Your task to perform on an android device: open the mobile data screen to see how much data has been used Image 0: 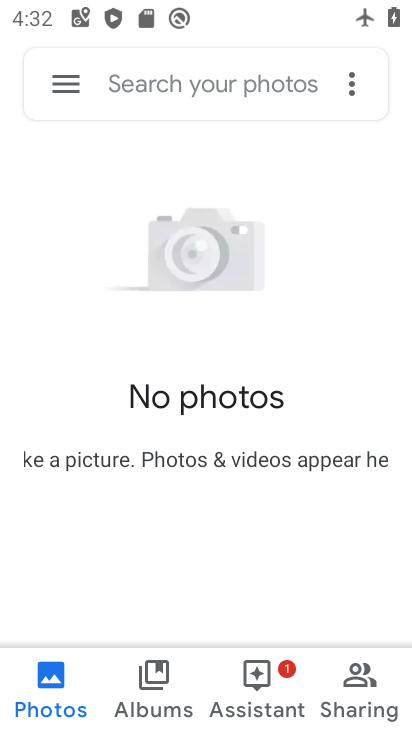
Step 0: press back button
Your task to perform on an android device: open the mobile data screen to see how much data has been used Image 1: 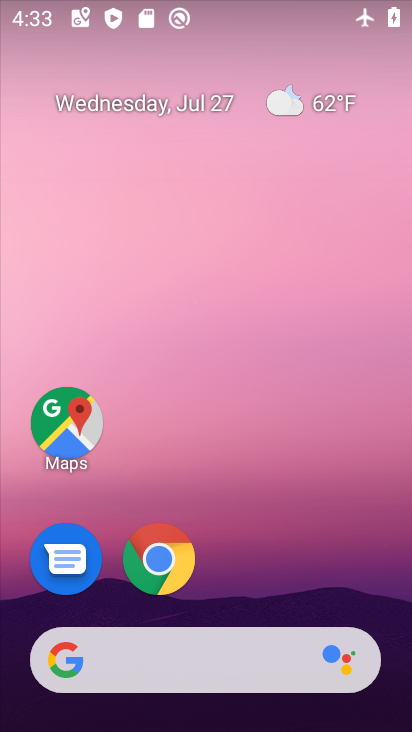
Step 1: drag from (241, 587) to (244, 28)
Your task to perform on an android device: open the mobile data screen to see how much data has been used Image 2: 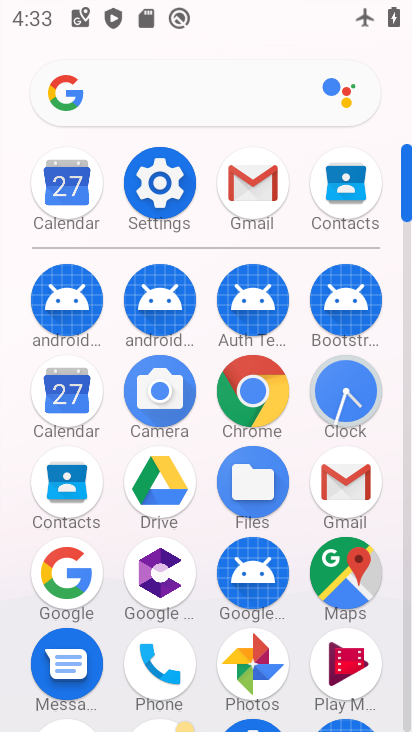
Step 2: click (239, 384)
Your task to perform on an android device: open the mobile data screen to see how much data has been used Image 3: 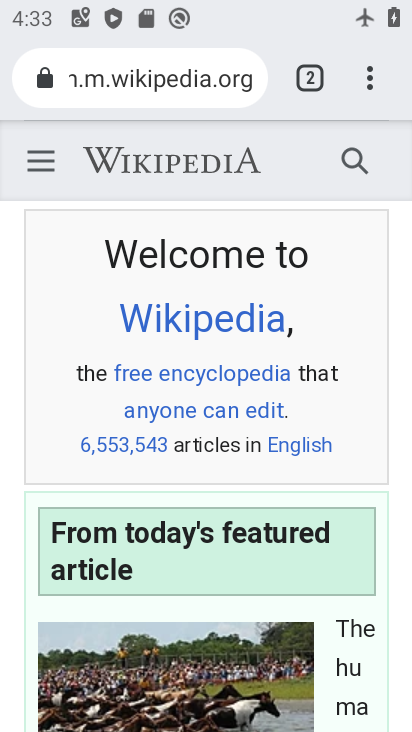
Step 3: drag from (374, 72) to (138, 600)
Your task to perform on an android device: open the mobile data screen to see how much data has been used Image 4: 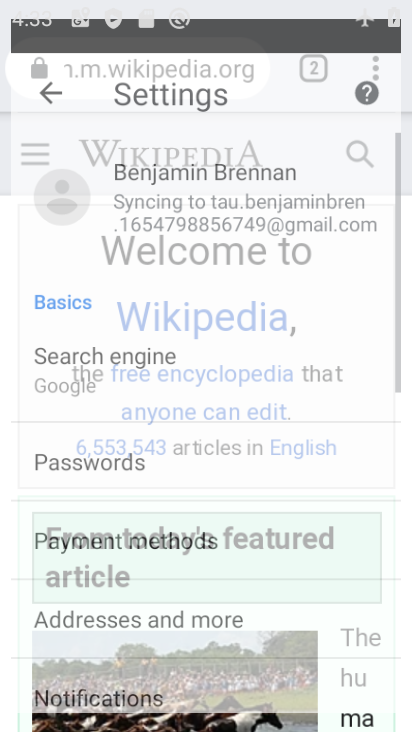
Step 4: press back button
Your task to perform on an android device: open the mobile data screen to see how much data has been used Image 5: 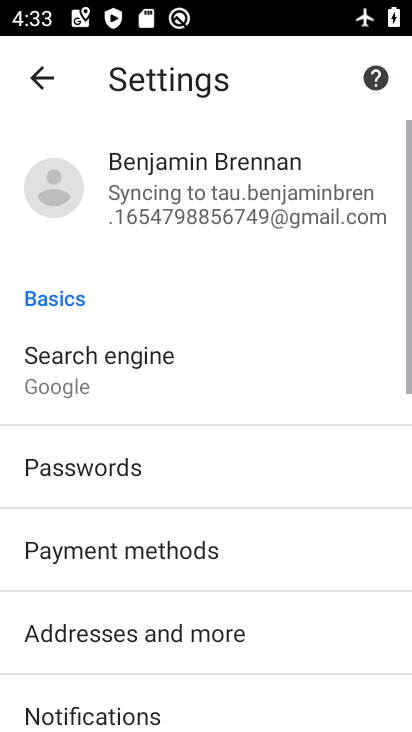
Step 5: press back button
Your task to perform on an android device: open the mobile data screen to see how much data has been used Image 6: 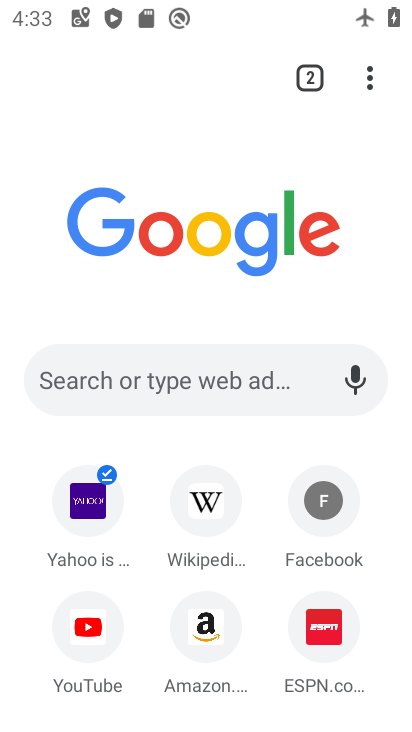
Step 6: press back button
Your task to perform on an android device: open the mobile data screen to see how much data has been used Image 7: 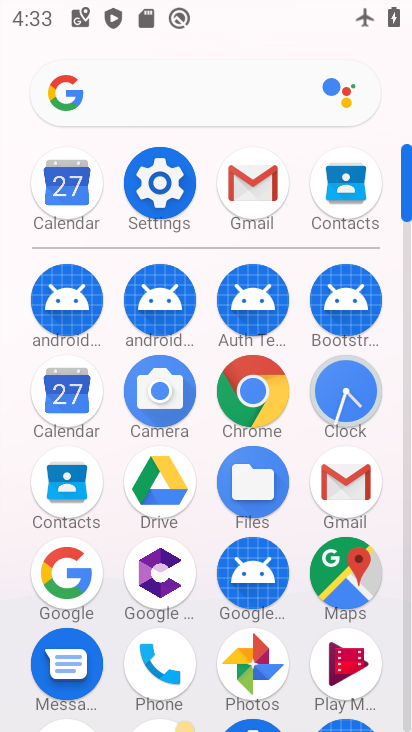
Step 7: click (166, 184)
Your task to perform on an android device: open the mobile data screen to see how much data has been used Image 8: 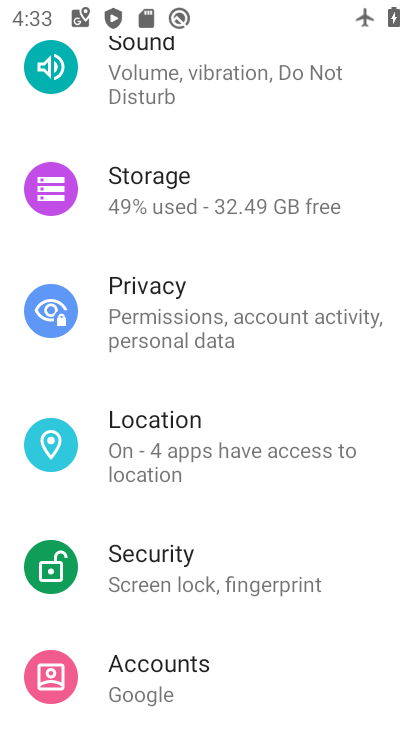
Step 8: drag from (262, 112) to (238, 726)
Your task to perform on an android device: open the mobile data screen to see how much data has been used Image 9: 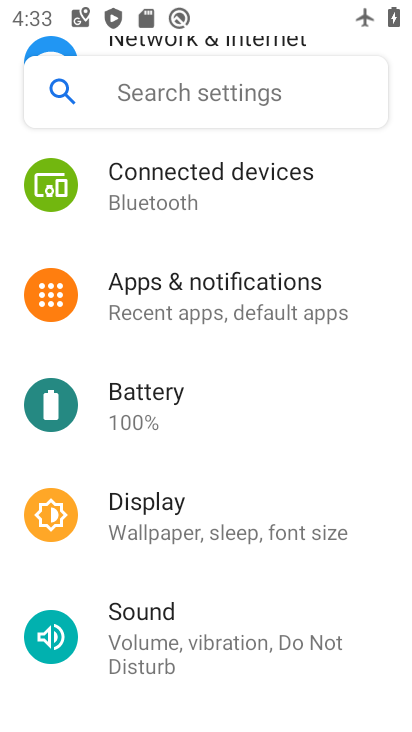
Step 9: drag from (236, 213) to (166, 709)
Your task to perform on an android device: open the mobile data screen to see how much data has been used Image 10: 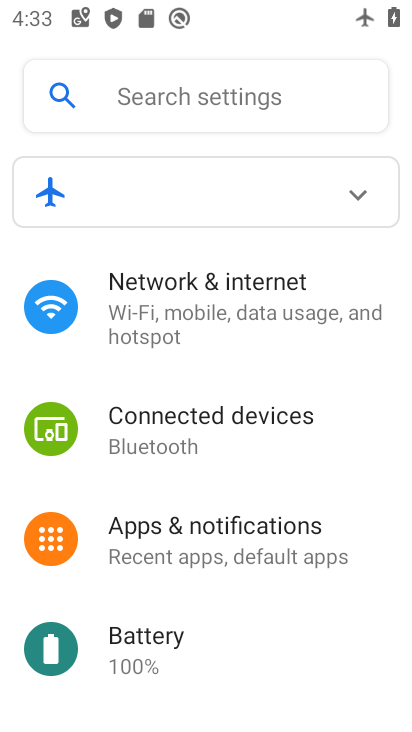
Step 10: click (253, 315)
Your task to perform on an android device: open the mobile data screen to see how much data has been used Image 11: 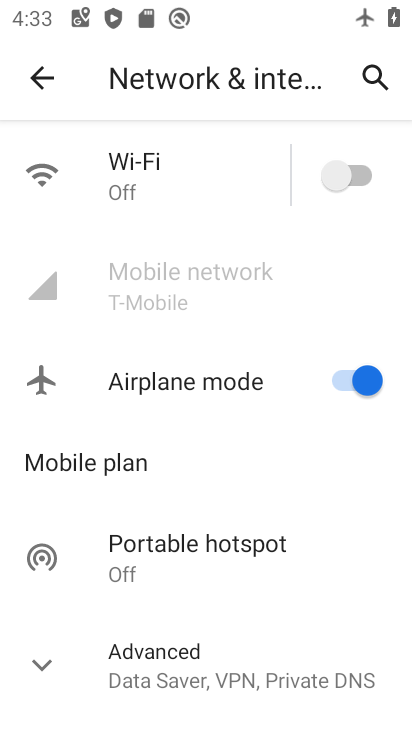
Step 11: click (362, 387)
Your task to perform on an android device: open the mobile data screen to see how much data has been used Image 12: 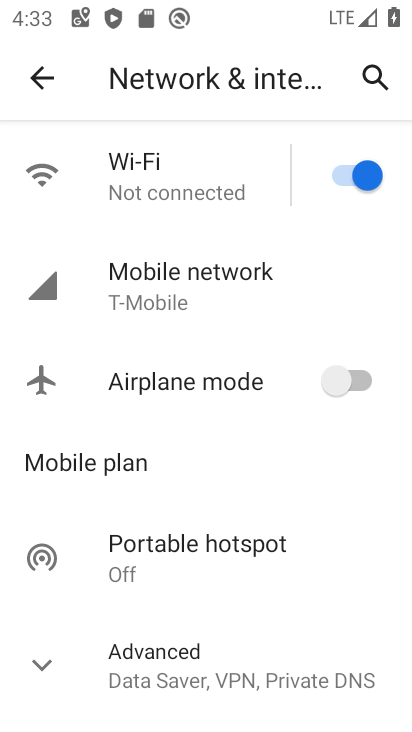
Step 12: click (190, 286)
Your task to perform on an android device: open the mobile data screen to see how much data has been used Image 13: 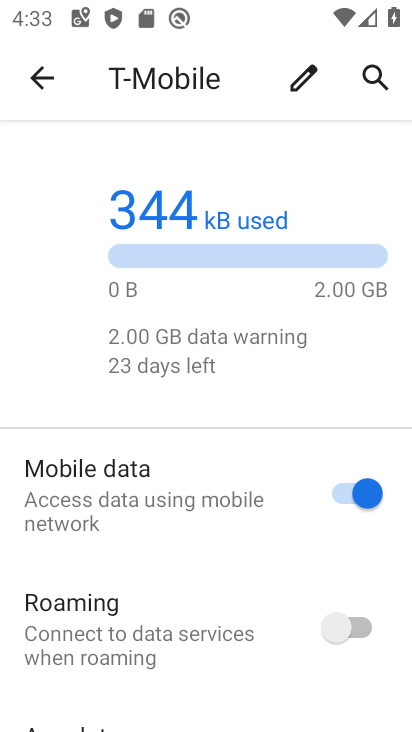
Step 13: drag from (234, 313) to (261, 138)
Your task to perform on an android device: open the mobile data screen to see how much data has been used Image 14: 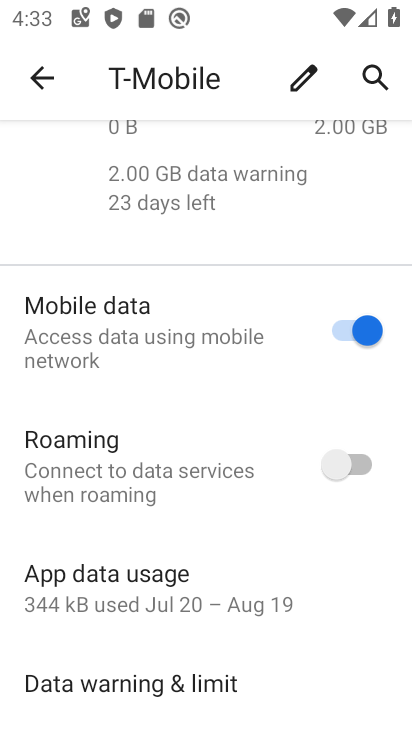
Step 14: click (72, 585)
Your task to perform on an android device: open the mobile data screen to see how much data has been used Image 15: 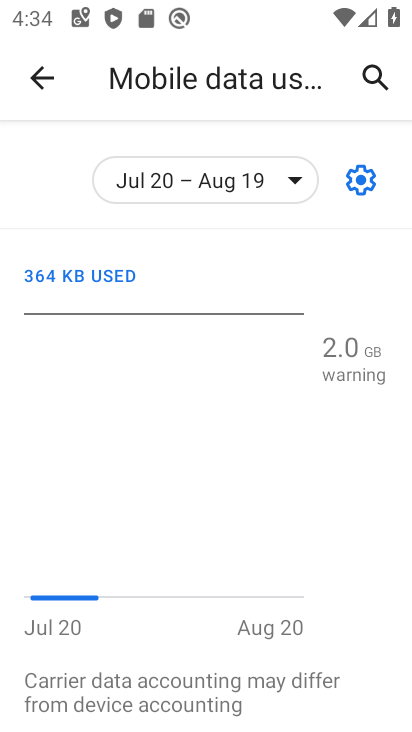
Step 15: task complete